Your task to perform on an android device: View the shopping cart on target.com. Add duracell triple a to the cart on target.com Image 0: 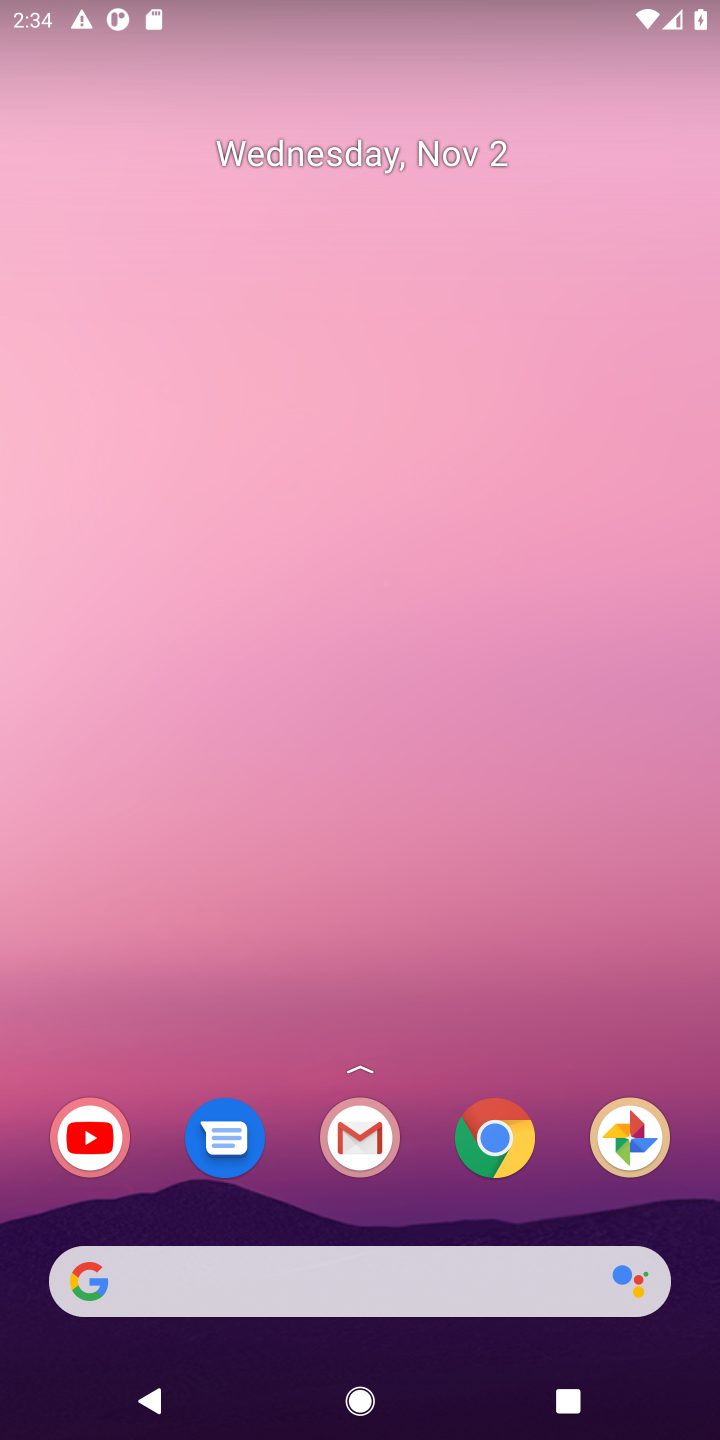
Step 0: press home button
Your task to perform on an android device: View the shopping cart on target.com. Add duracell triple a to the cart on target.com Image 1: 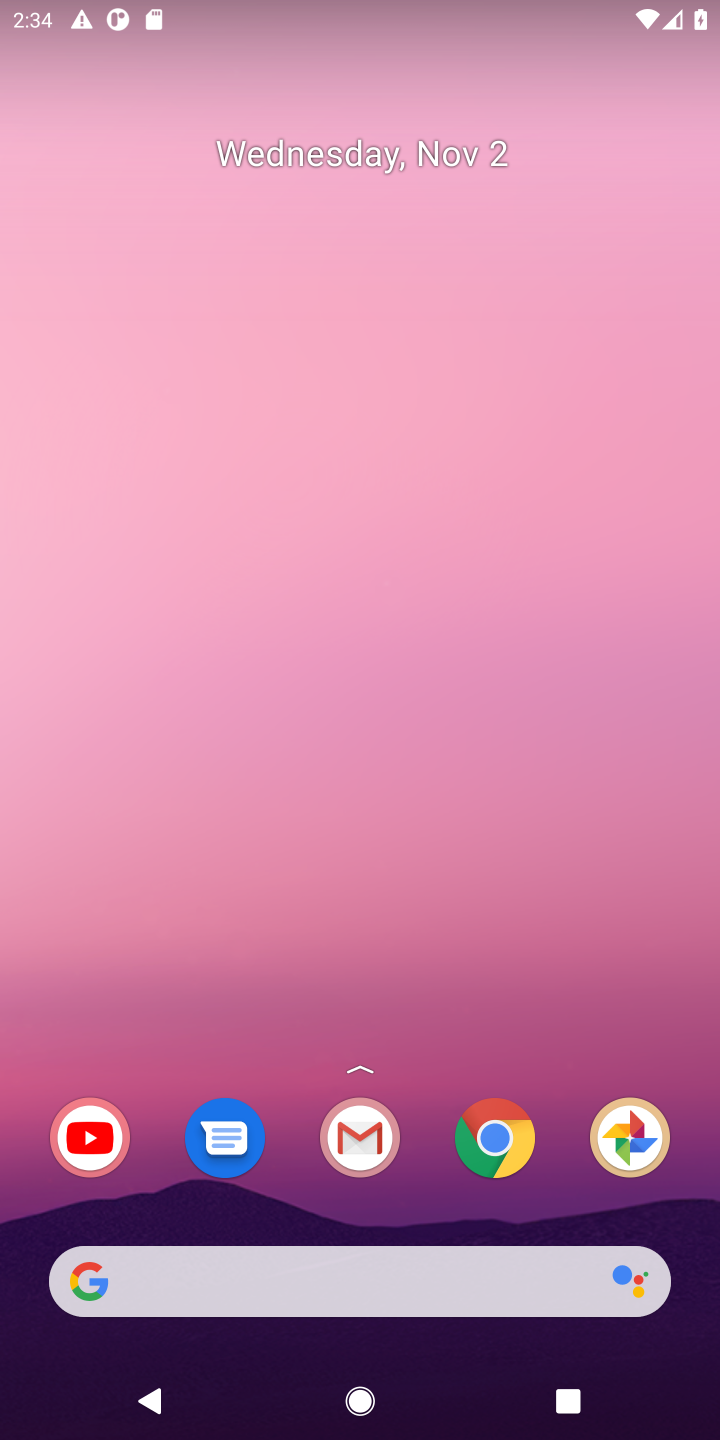
Step 1: click (148, 1278)
Your task to perform on an android device: View the shopping cart on target.com. Add duracell triple a to the cart on target.com Image 2: 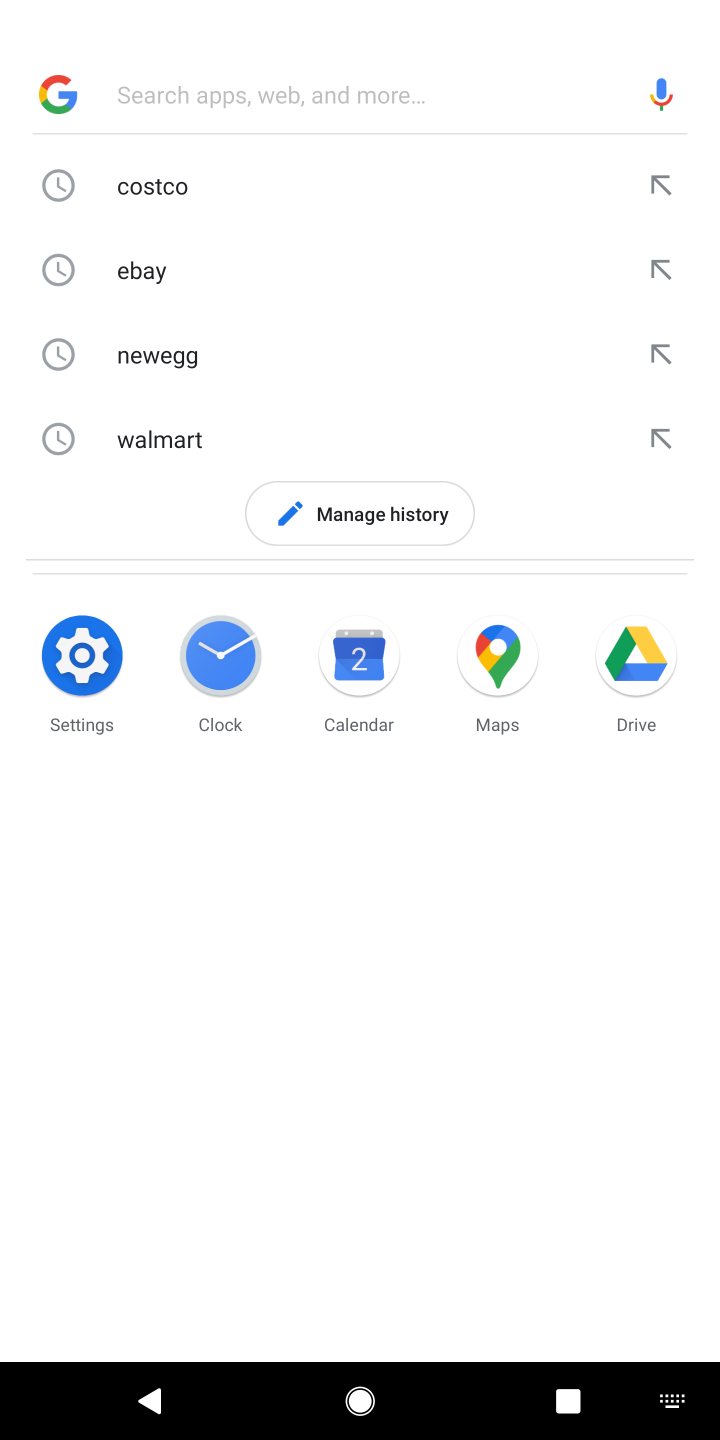
Step 2: type "target.com"
Your task to perform on an android device: View the shopping cart on target.com. Add duracell triple a to the cart on target.com Image 3: 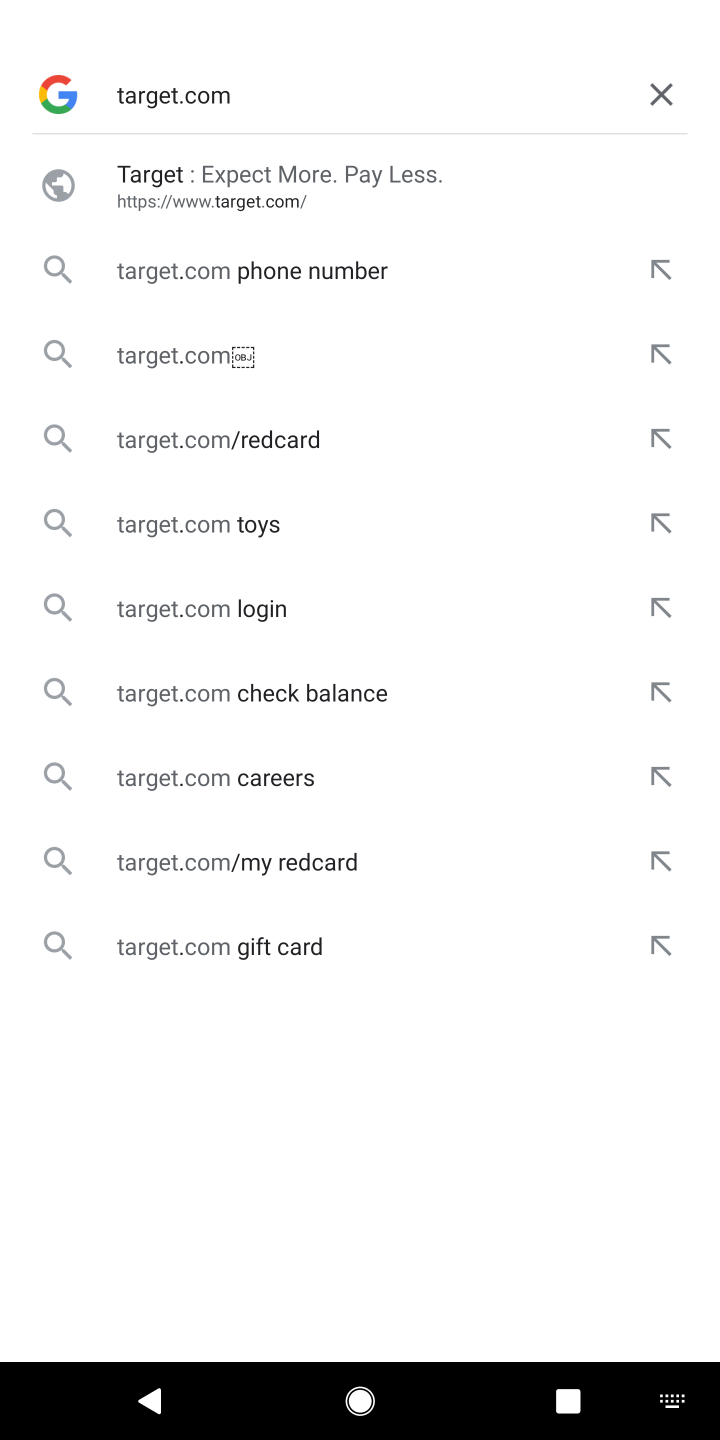
Step 3: press enter
Your task to perform on an android device: View the shopping cart on target.com. Add duracell triple a to the cart on target.com Image 4: 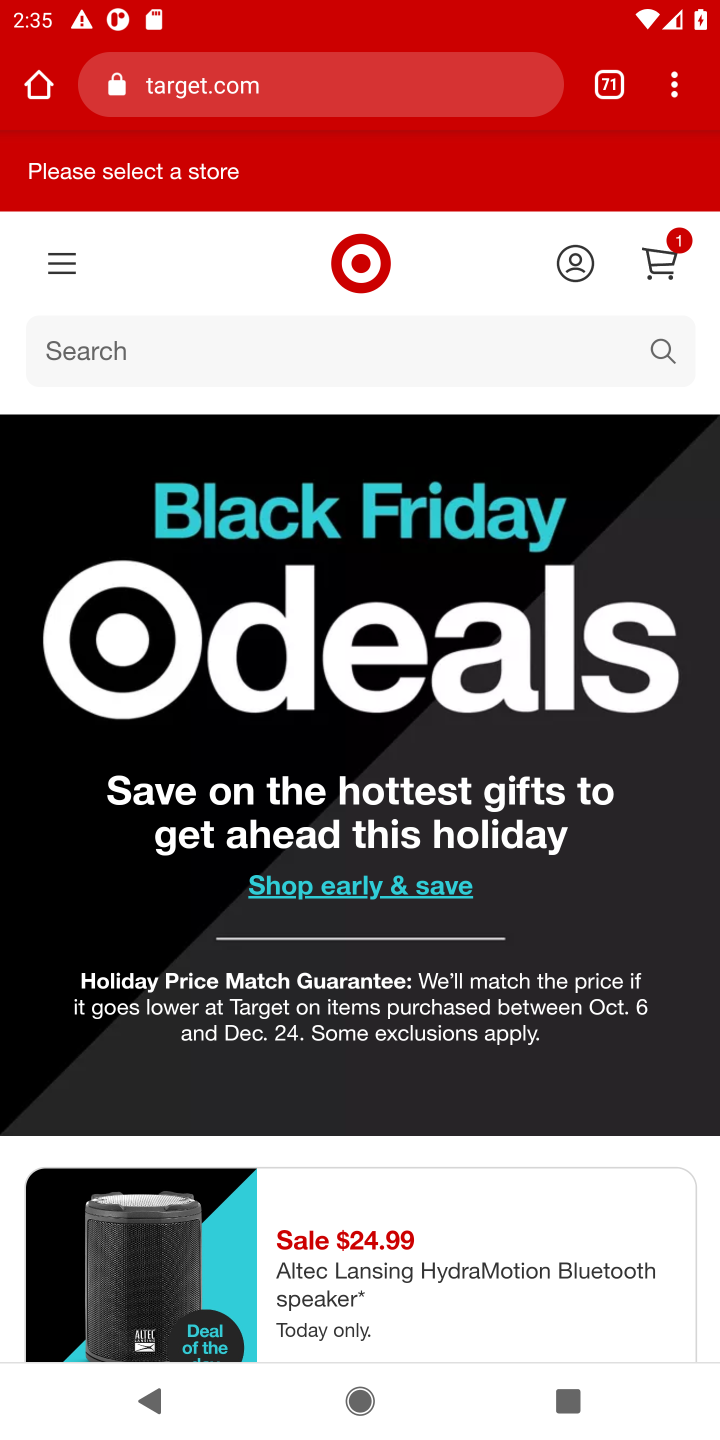
Step 4: click (664, 261)
Your task to perform on an android device: View the shopping cart on target.com. Add duracell triple a to the cart on target.com Image 5: 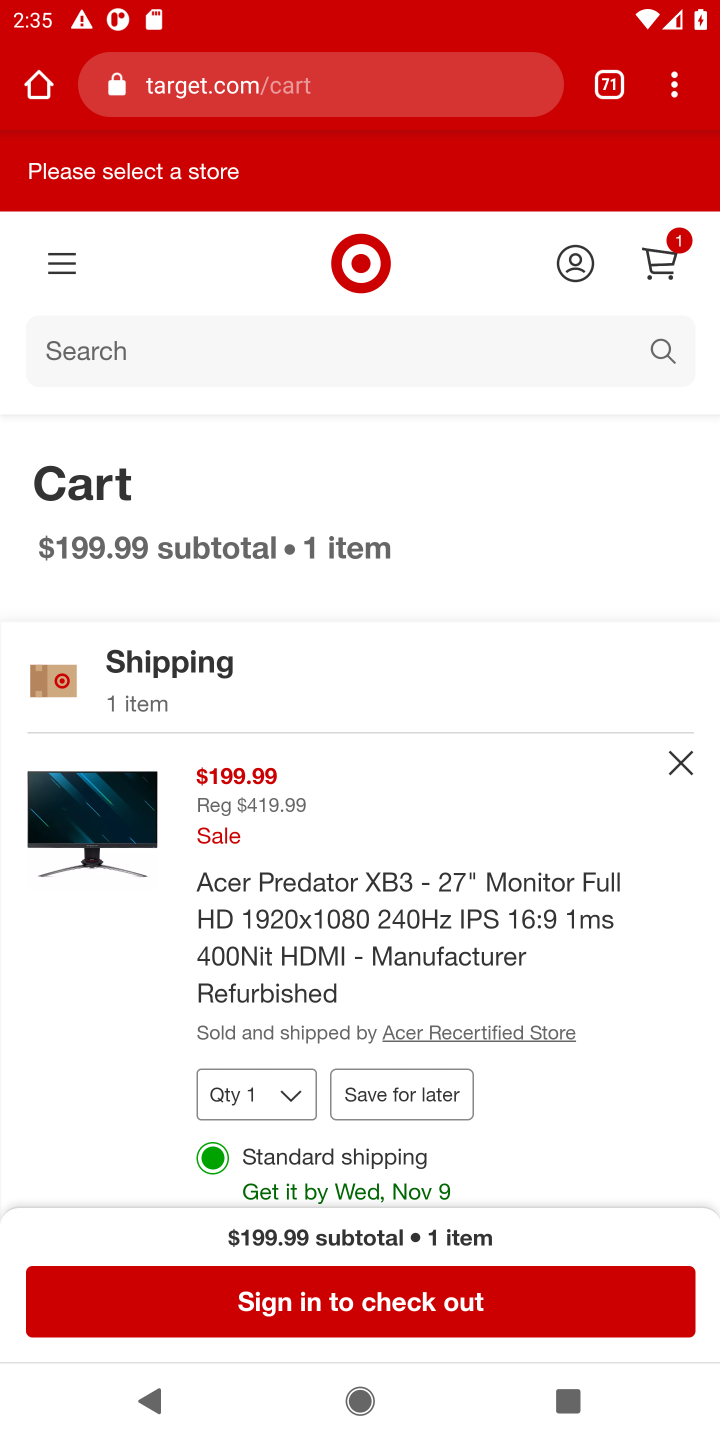
Step 5: click (213, 353)
Your task to perform on an android device: View the shopping cart on target.com. Add duracell triple a to the cart on target.com Image 6: 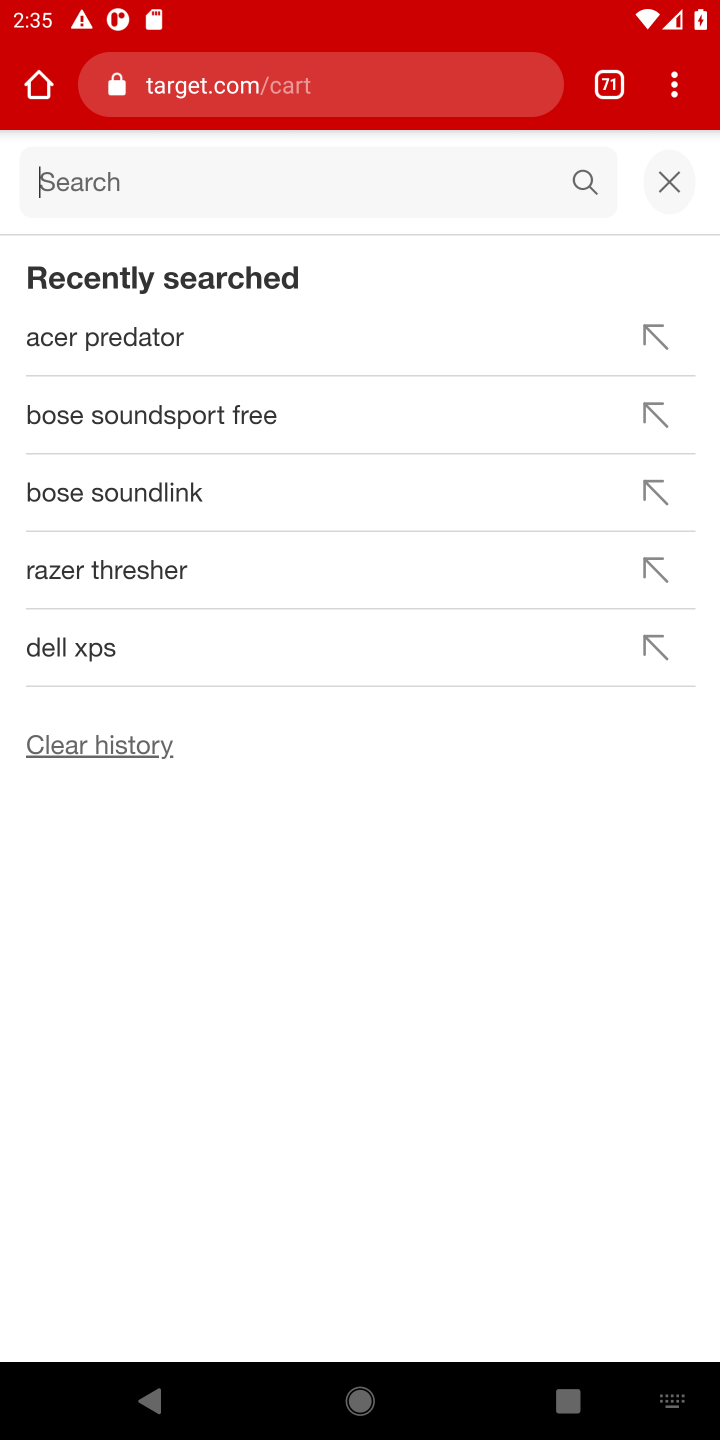
Step 6: type "duracell triple a"
Your task to perform on an android device: View the shopping cart on target.com. Add duracell triple a to the cart on target.com Image 7: 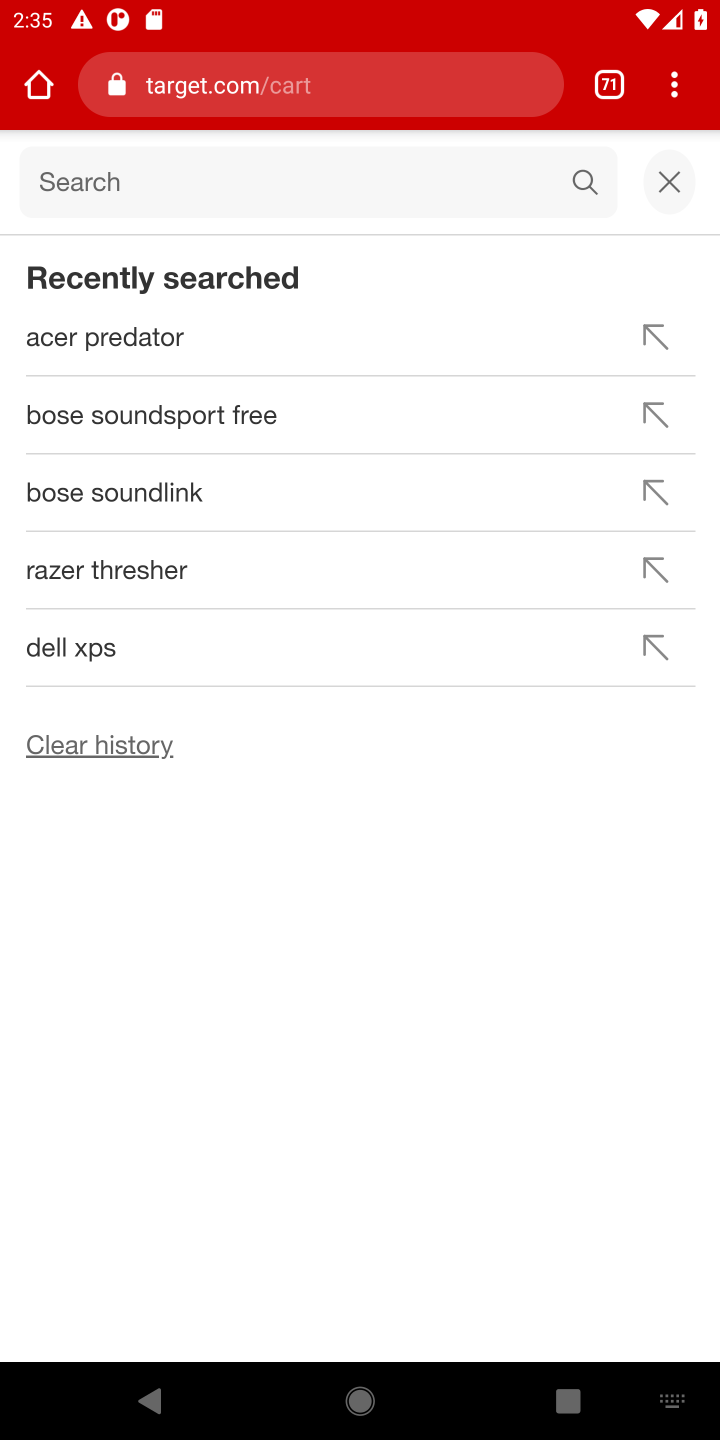
Step 7: press enter
Your task to perform on an android device: View the shopping cart on target.com. Add duracell triple a to the cart on target.com Image 8: 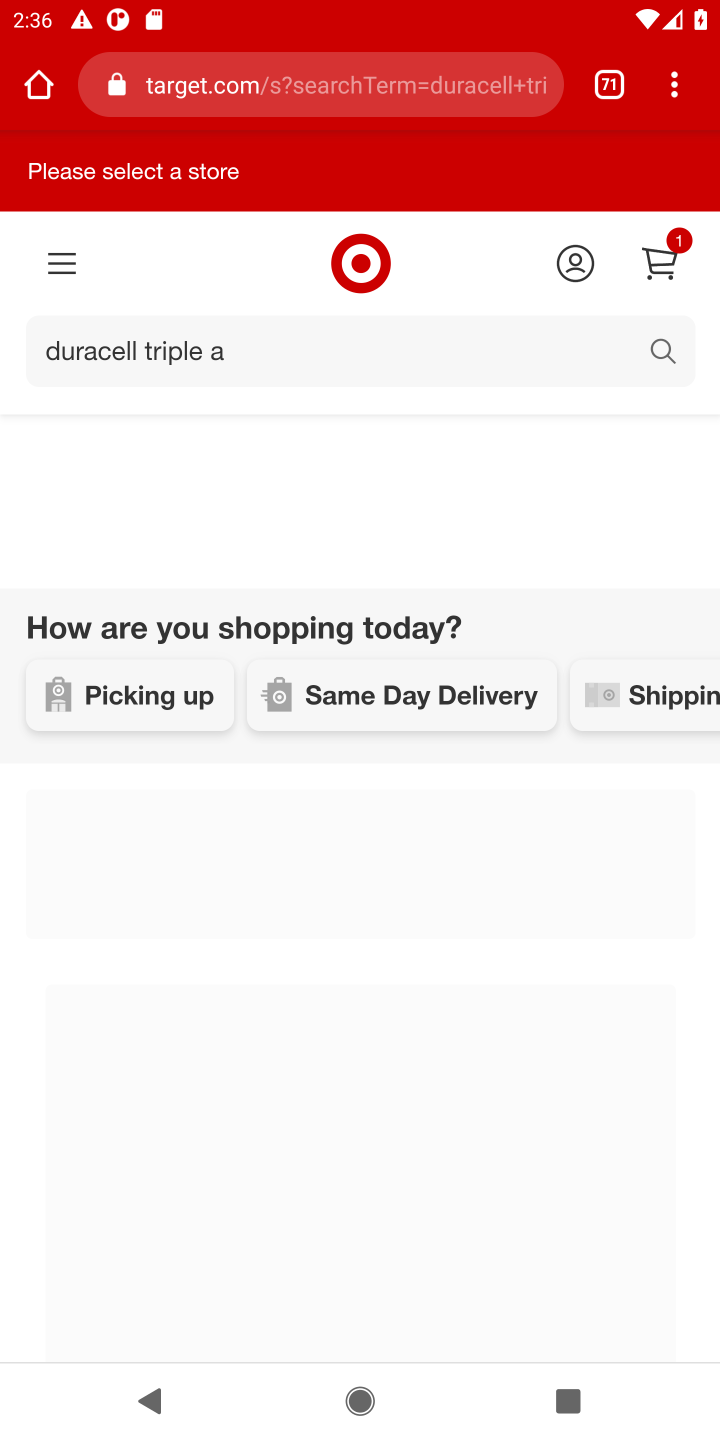
Step 8: click (671, 350)
Your task to perform on an android device: View the shopping cart on target.com. Add duracell triple a to the cart on target.com Image 9: 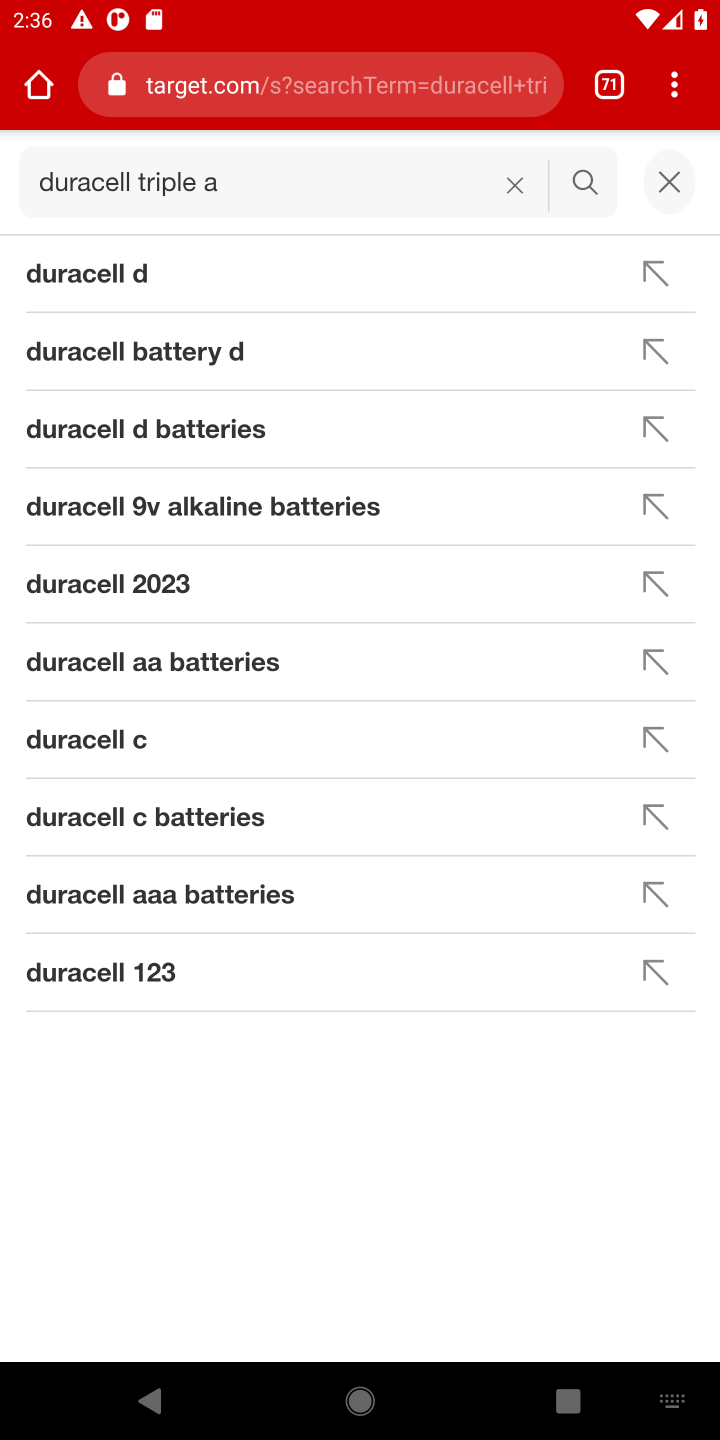
Step 9: click (583, 172)
Your task to perform on an android device: View the shopping cart on target.com. Add duracell triple a to the cart on target.com Image 10: 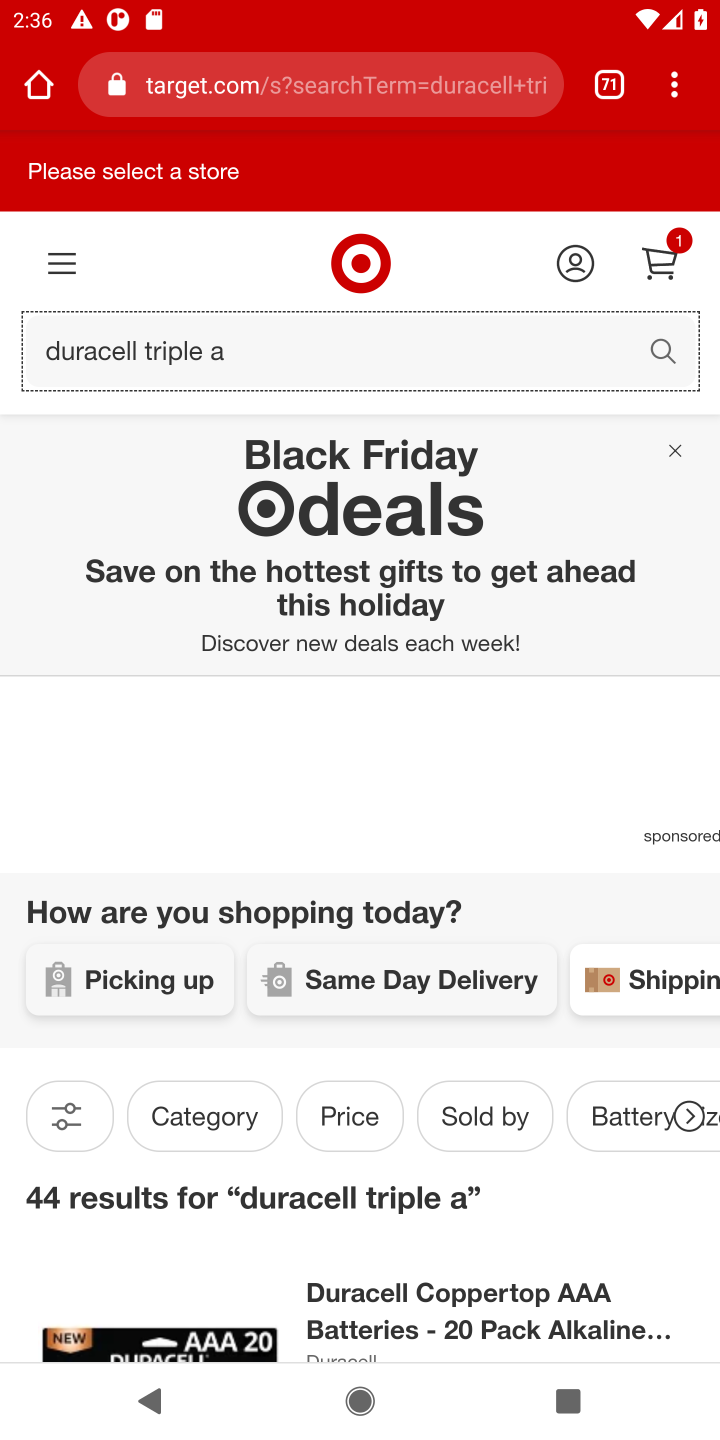
Step 10: drag from (448, 945) to (507, 680)
Your task to perform on an android device: View the shopping cart on target.com. Add duracell triple a to the cart on target.com Image 11: 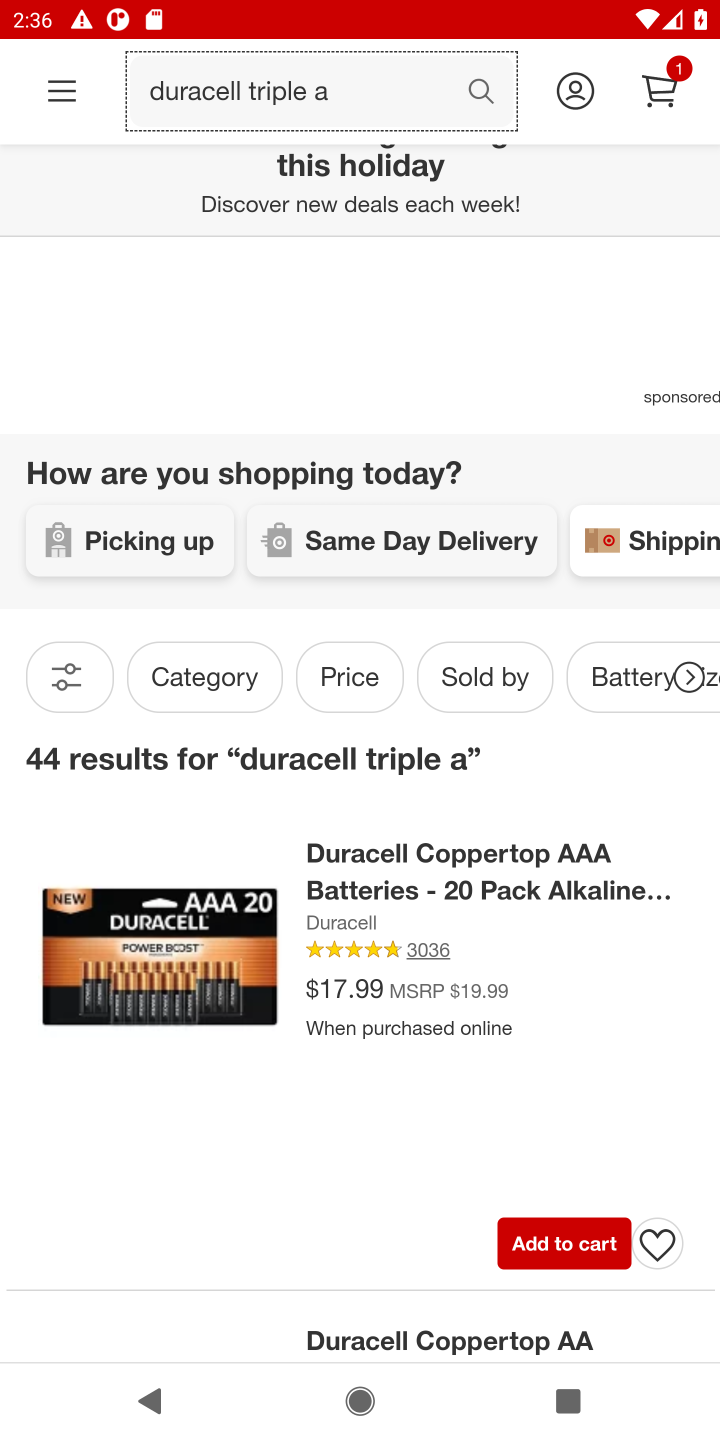
Step 11: drag from (441, 1170) to (475, 825)
Your task to perform on an android device: View the shopping cart on target.com. Add duracell triple a to the cart on target.com Image 12: 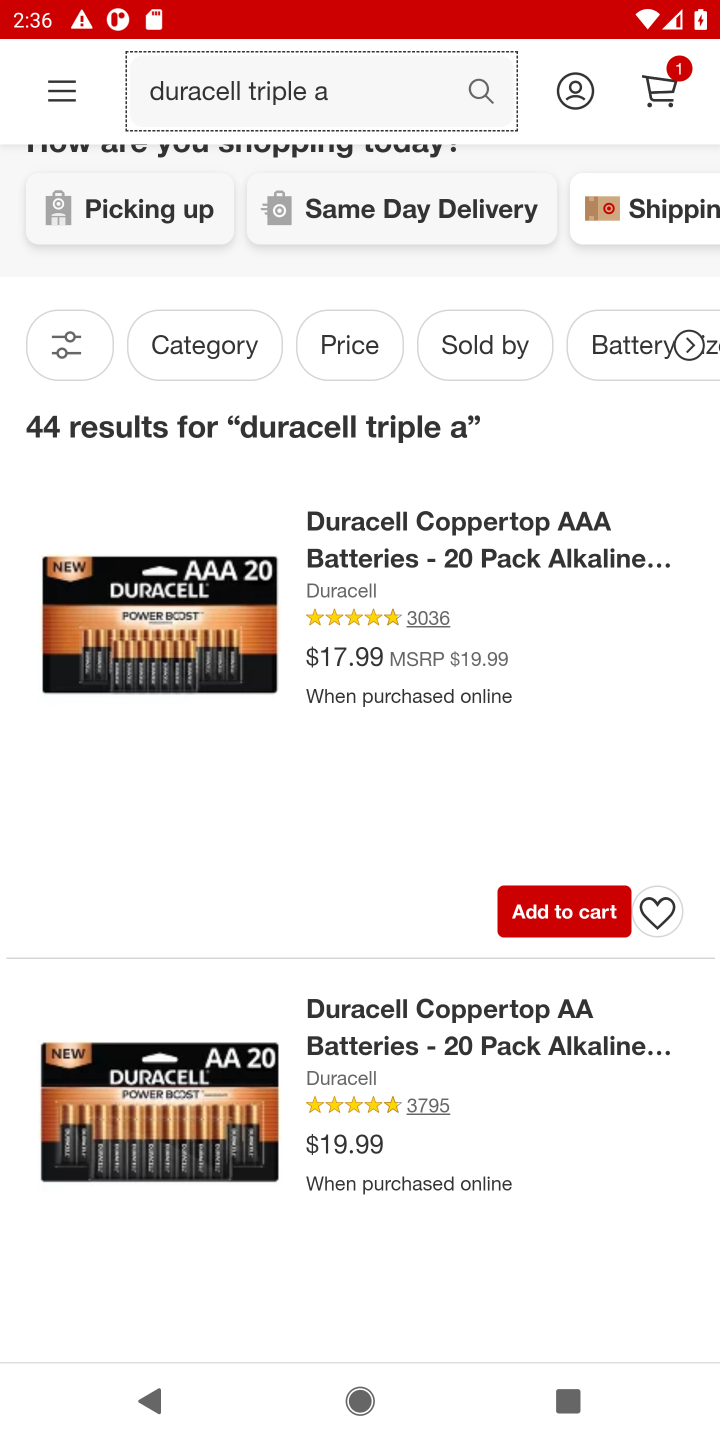
Step 12: click (575, 913)
Your task to perform on an android device: View the shopping cart on target.com. Add duracell triple a to the cart on target.com Image 13: 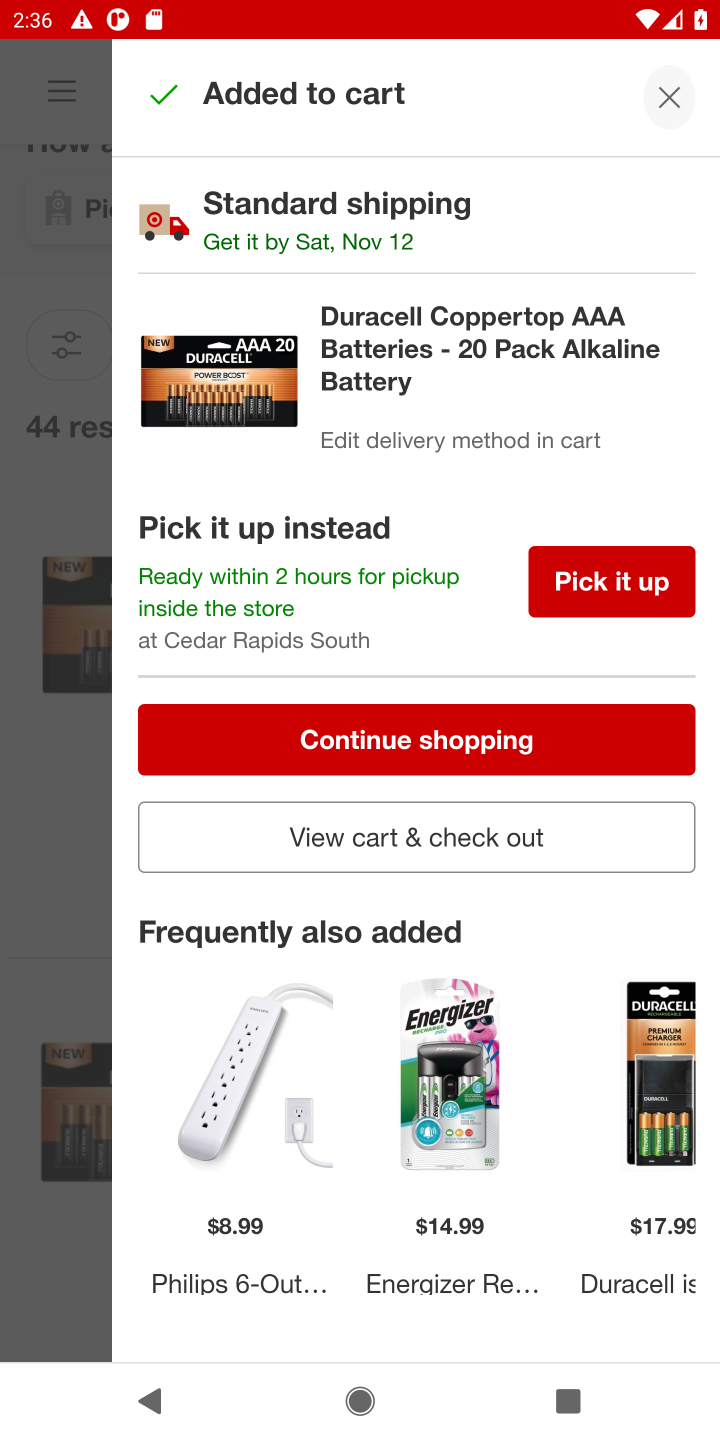
Step 13: task complete